Your task to perform on an android device: see creations saved in the google photos Image 0: 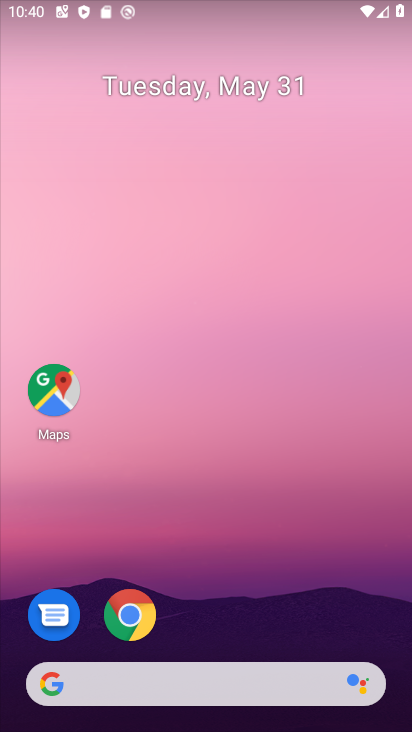
Step 0: task complete